Your task to perform on an android device: Open calendar and show me the first week of next month Image 0: 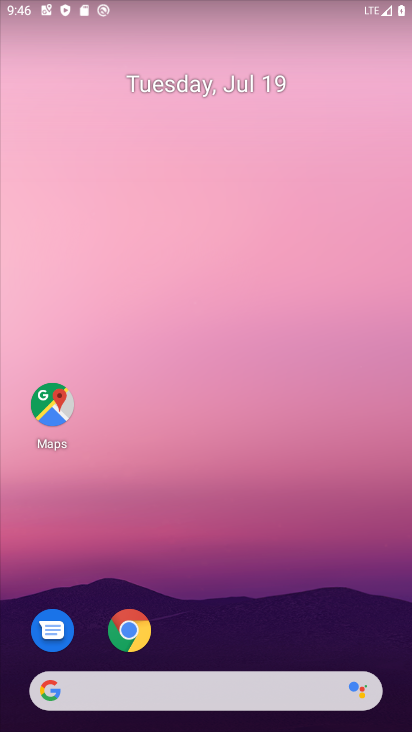
Step 0: drag from (188, 634) to (157, 171)
Your task to perform on an android device: Open calendar and show me the first week of next month Image 1: 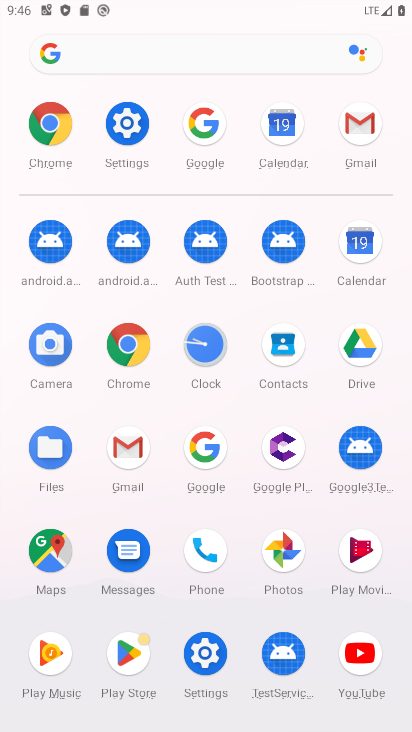
Step 1: click (362, 243)
Your task to perform on an android device: Open calendar and show me the first week of next month Image 2: 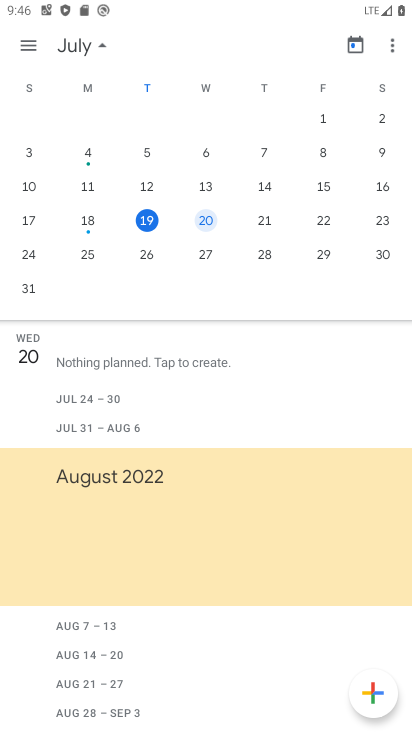
Step 2: drag from (391, 283) to (5, 274)
Your task to perform on an android device: Open calendar and show me the first week of next month Image 3: 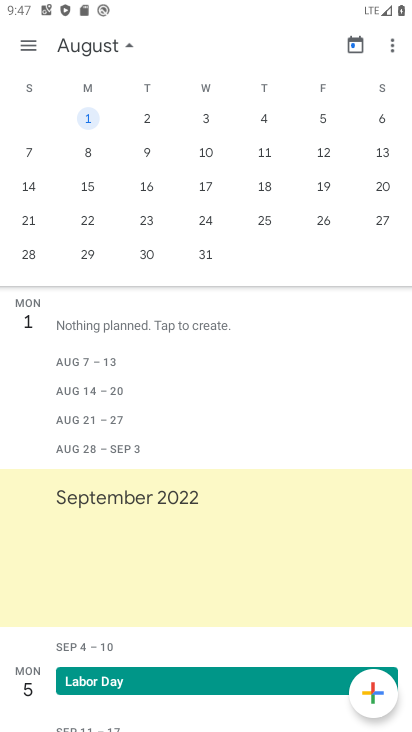
Step 3: click (265, 122)
Your task to perform on an android device: Open calendar and show me the first week of next month Image 4: 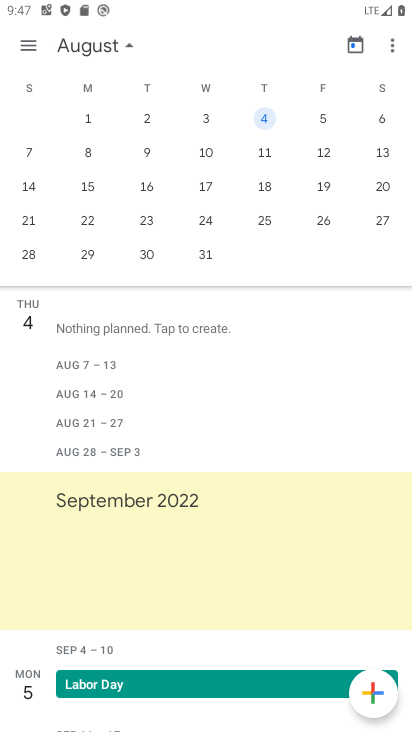
Step 4: task complete